Your task to perform on an android device: Is it going to rain tomorrow? Image 0: 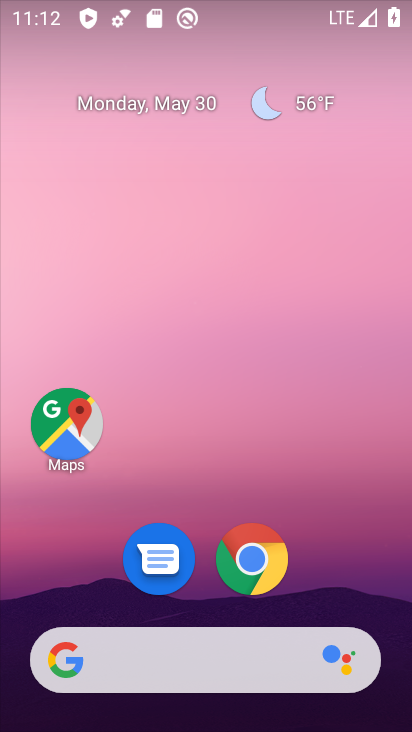
Step 0: click (239, 674)
Your task to perform on an android device: Is it going to rain tomorrow? Image 1: 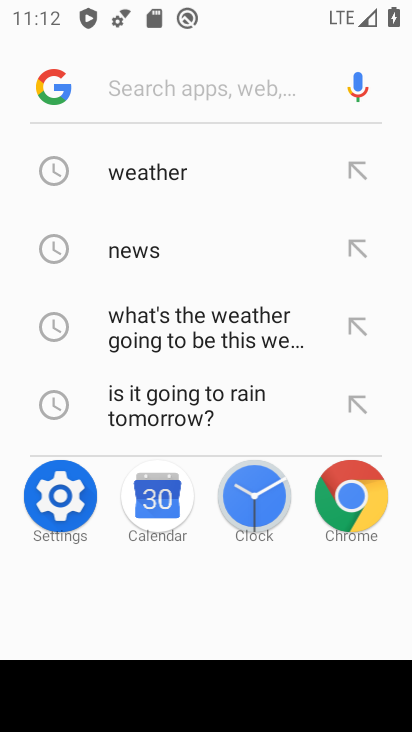
Step 1: click (220, 413)
Your task to perform on an android device: Is it going to rain tomorrow? Image 2: 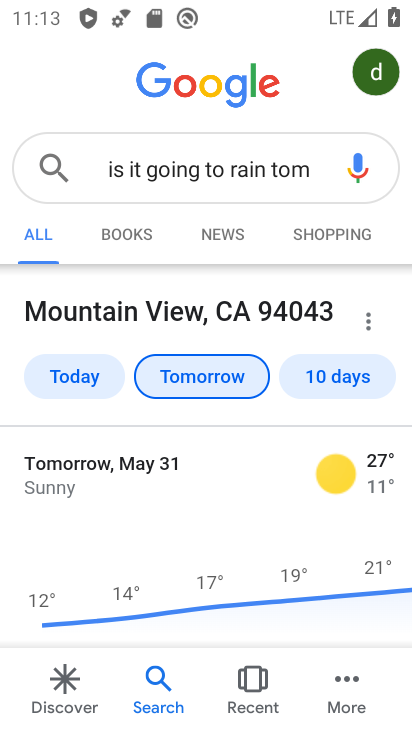
Step 2: task complete